Your task to perform on an android device: check data usage Image 0: 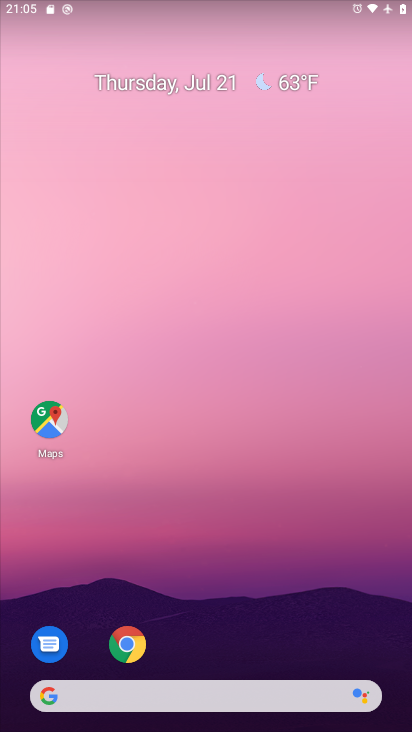
Step 0: drag from (172, 644) to (179, 32)
Your task to perform on an android device: check data usage Image 1: 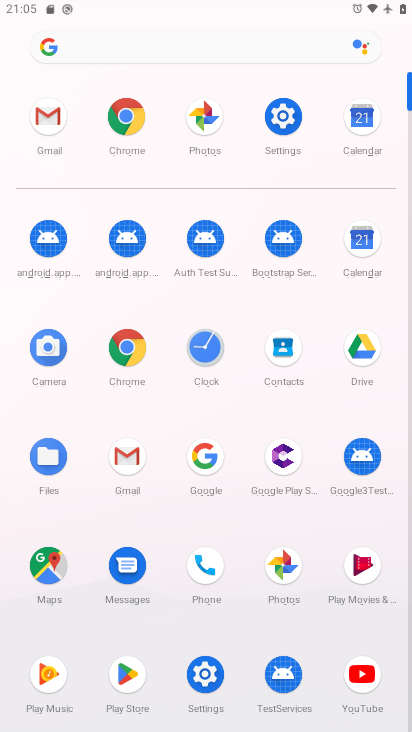
Step 1: click (288, 100)
Your task to perform on an android device: check data usage Image 2: 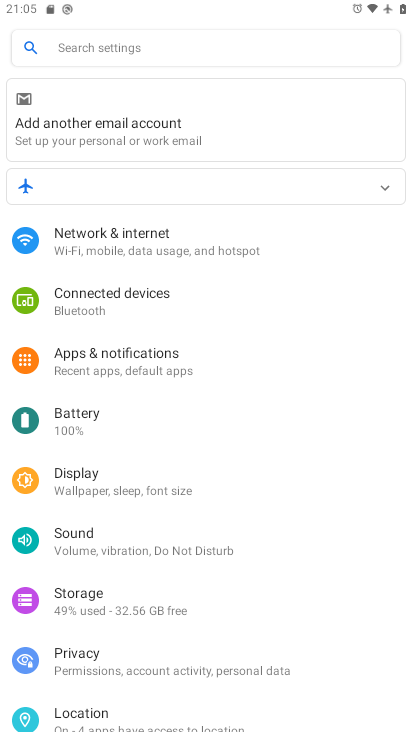
Step 2: click (123, 237)
Your task to perform on an android device: check data usage Image 3: 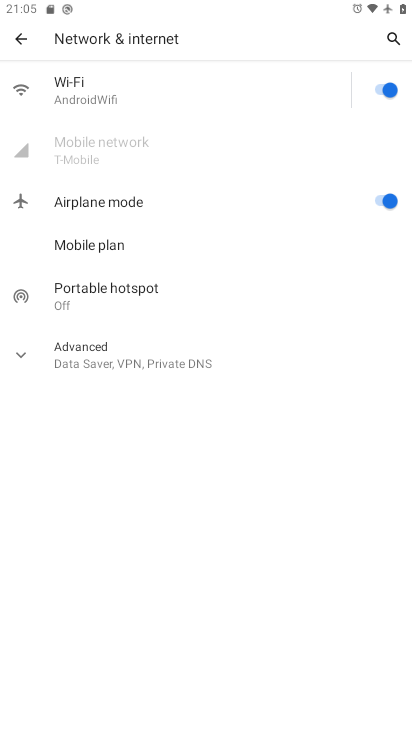
Step 3: click (114, 142)
Your task to perform on an android device: check data usage Image 4: 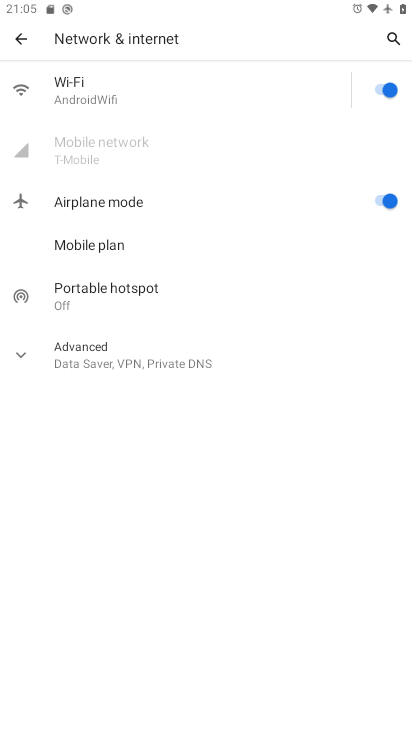
Step 4: click (114, 142)
Your task to perform on an android device: check data usage Image 5: 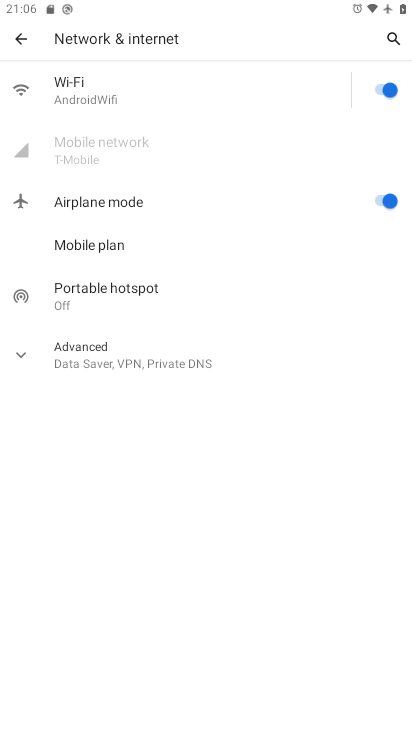
Step 5: task complete